Your task to perform on an android device: turn off smart reply in the gmail app Image 0: 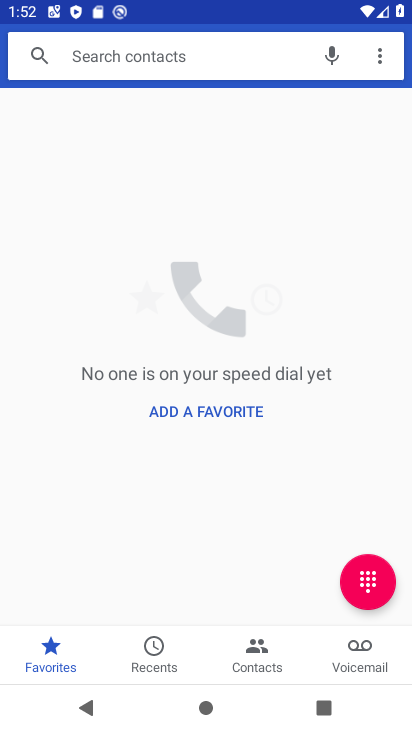
Step 0: press home button
Your task to perform on an android device: turn off smart reply in the gmail app Image 1: 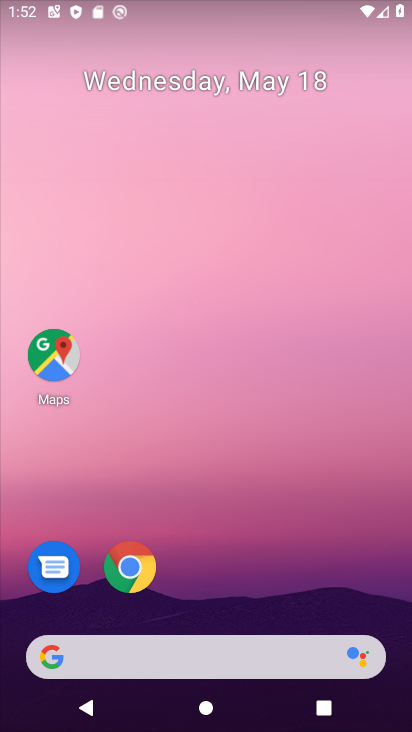
Step 1: drag from (304, 553) to (331, 99)
Your task to perform on an android device: turn off smart reply in the gmail app Image 2: 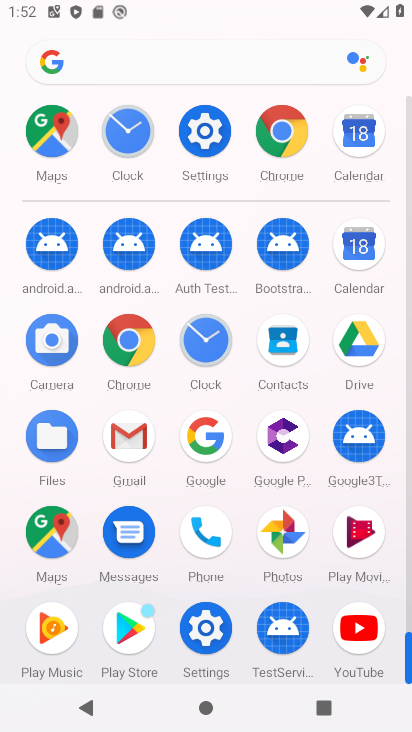
Step 2: click (129, 446)
Your task to perform on an android device: turn off smart reply in the gmail app Image 3: 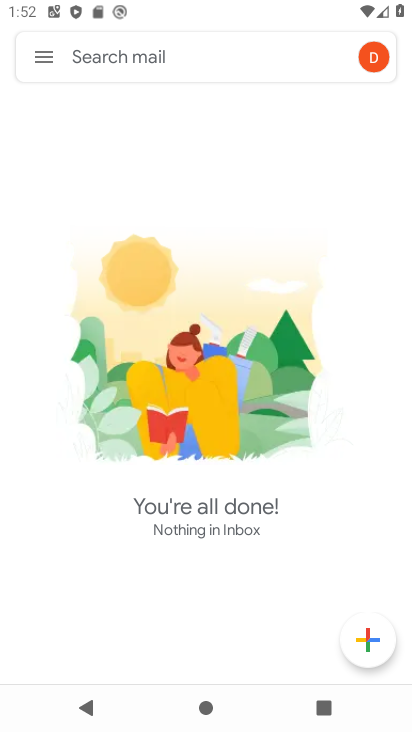
Step 3: click (49, 48)
Your task to perform on an android device: turn off smart reply in the gmail app Image 4: 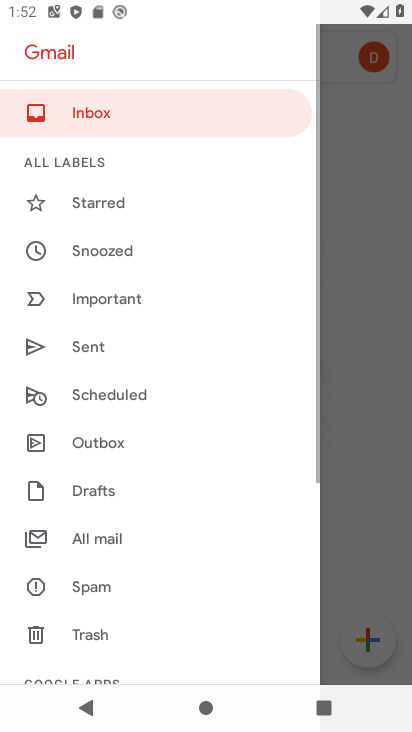
Step 4: drag from (141, 620) to (228, 262)
Your task to perform on an android device: turn off smart reply in the gmail app Image 5: 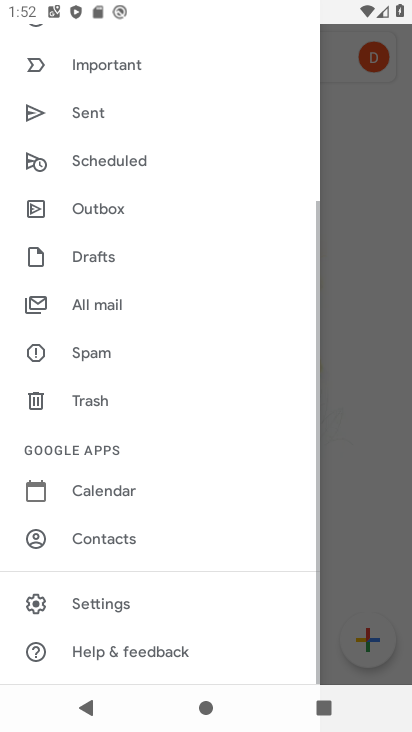
Step 5: click (111, 609)
Your task to perform on an android device: turn off smart reply in the gmail app Image 6: 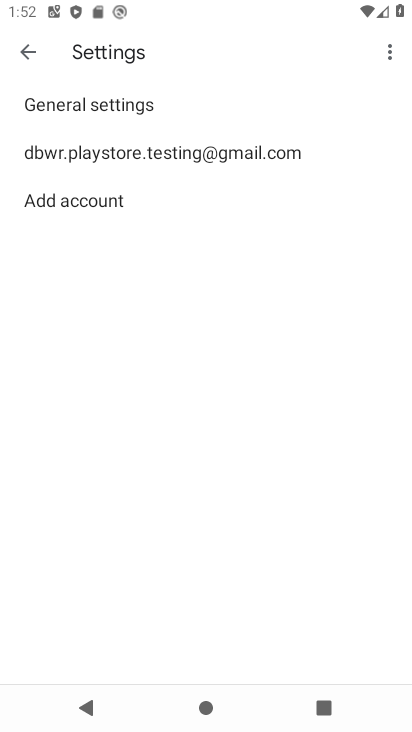
Step 6: click (147, 157)
Your task to perform on an android device: turn off smart reply in the gmail app Image 7: 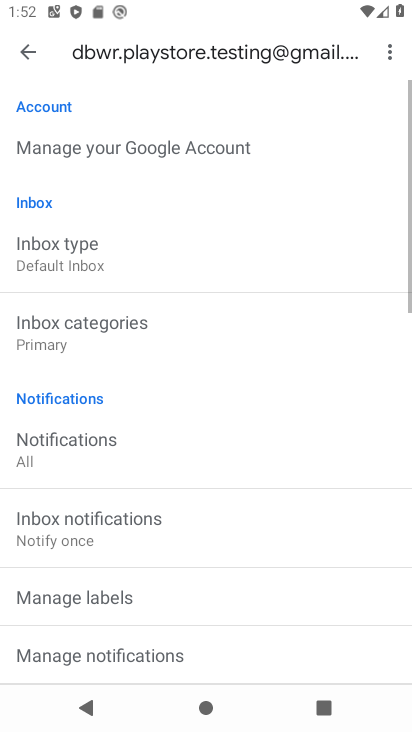
Step 7: drag from (177, 498) to (294, 241)
Your task to perform on an android device: turn off smart reply in the gmail app Image 8: 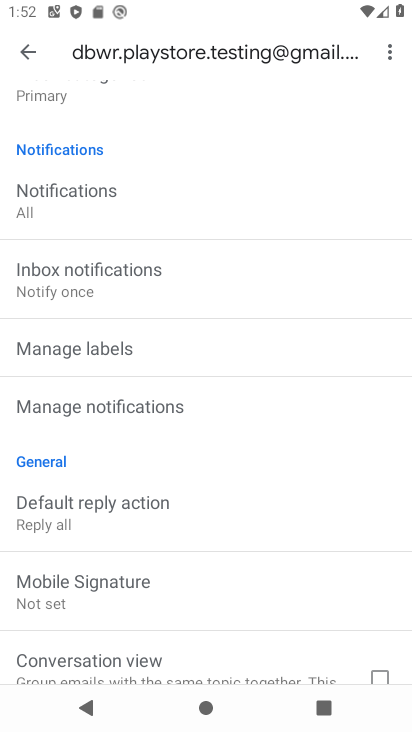
Step 8: drag from (128, 540) to (265, 211)
Your task to perform on an android device: turn off smart reply in the gmail app Image 9: 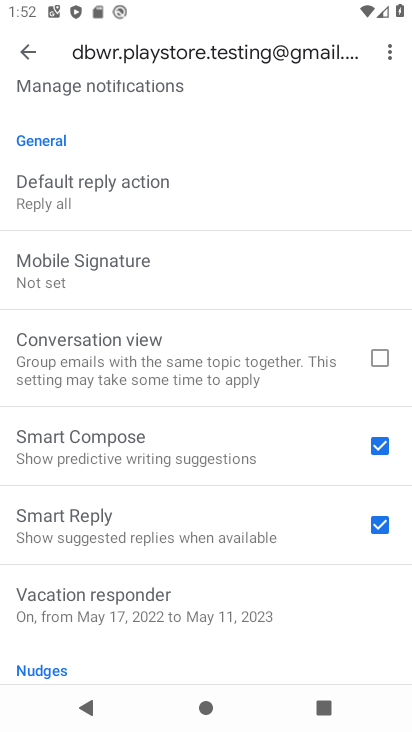
Step 9: click (382, 524)
Your task to perform on an android device: turn off smart reply in the gmail app Image 10: 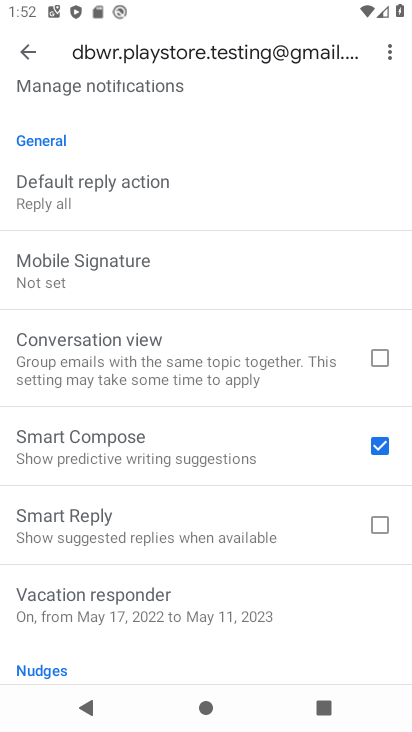
Step 10: task complete